Your task to perform on an android device: Open Youtube and go to the subscriptions tab Image 0: 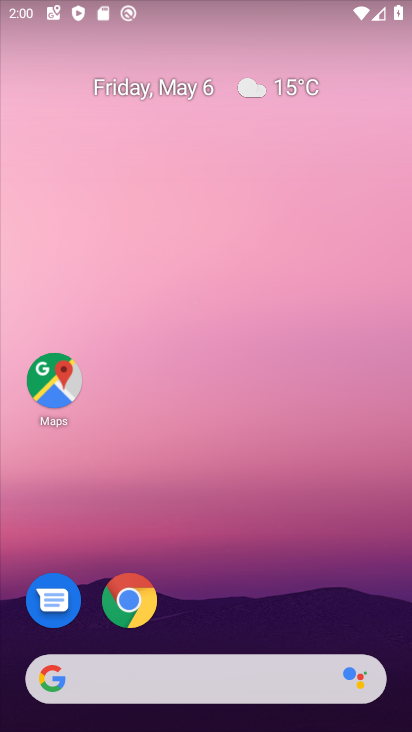
Step 0: drag from (341, 612) to (264, 20)
Your task to perform on an android device: Open Youtube and go to the subscriptions tab Image 1: 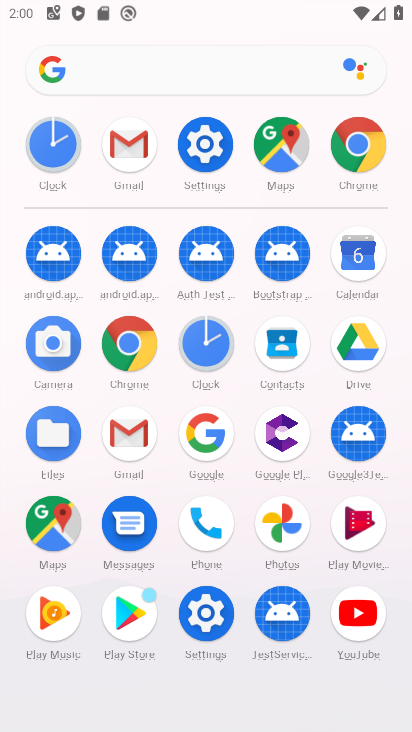
Step 1: click (358, 627)
Your task to perform on an android device: Open Youtube and go to the subscriptions tab Image 2: 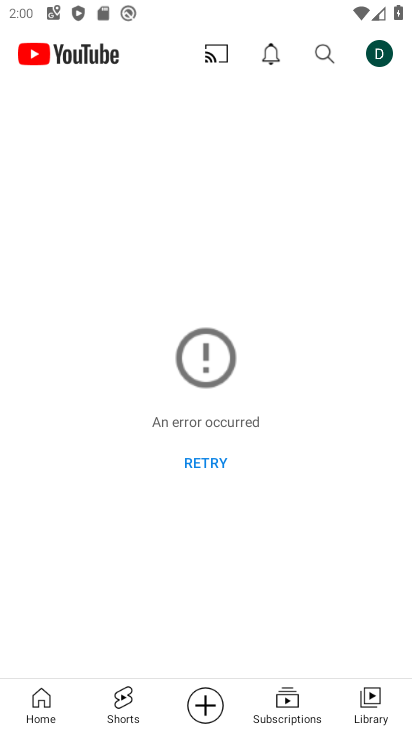
Step 2: click (295, 693)
Your task to perform on an android device: Open Youtube and go to the subscriptions tab Image 3: 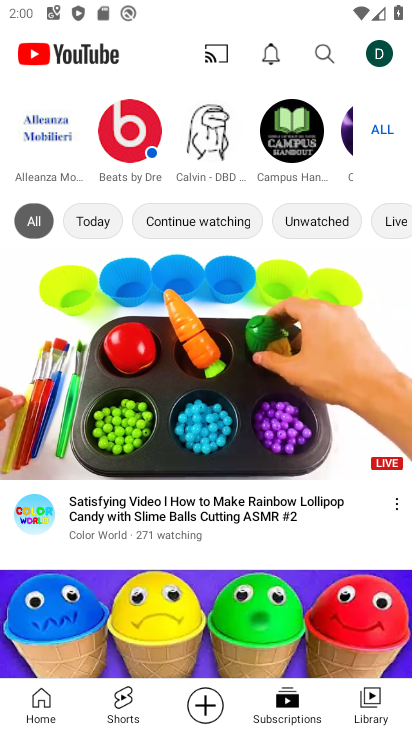
Step 3: task complete